Your task to perform on an android device: turn on priority inbox in the gmail app Image 0: 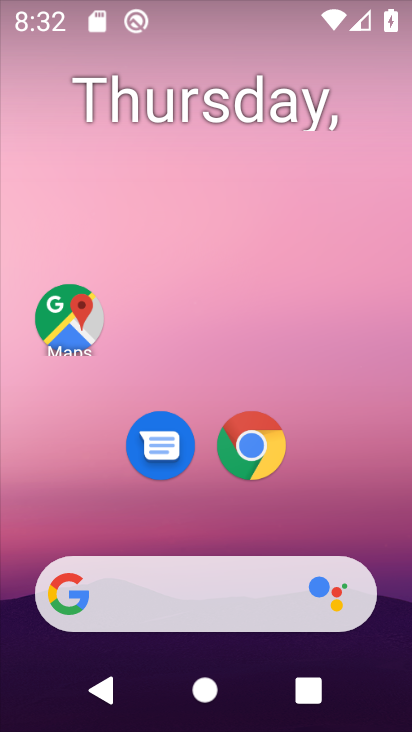
Step 0: drag from (318, 526) to (162, 60)
Your task to perform on an android device: turn on priority inbox in the gmail app Image 1: 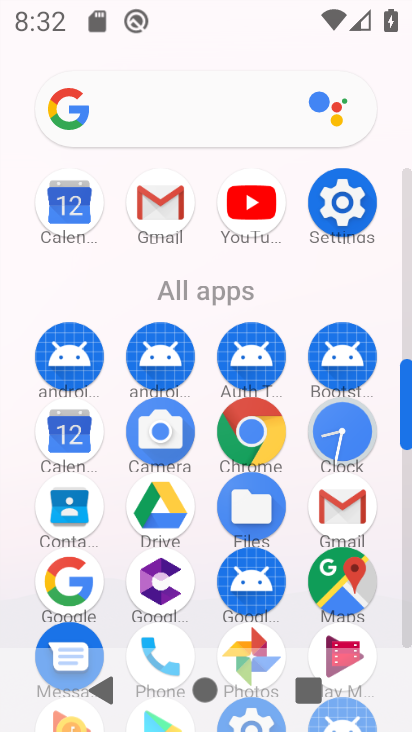
Step 1: click (170, 205)
Your task to perform on an android device: turn on priority inbox in the gmail app Image 2: 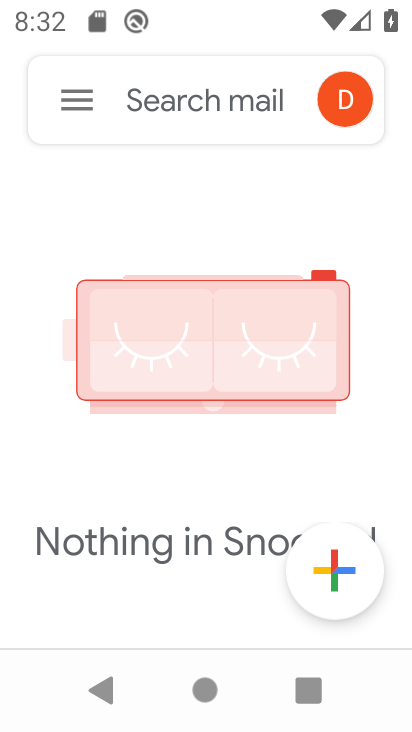
Step 2: click (81, 102)
Your task to perform on an android device: turn on priority inbox in the gmail app Image 3: 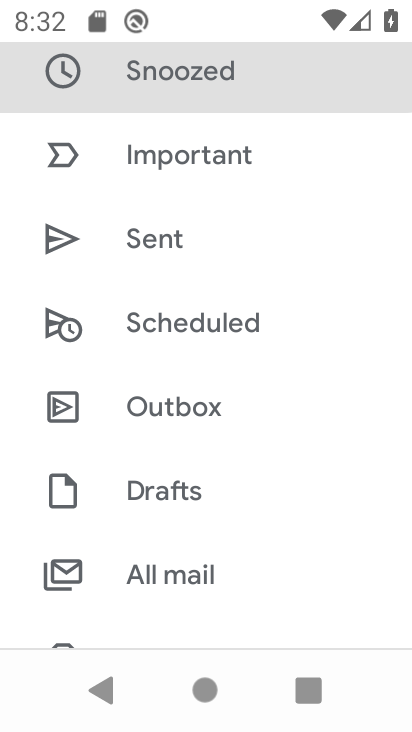
Step 3: drag from (225, 611) to (199, 267)
Your task to perform on an android device: turn on priority inbox in the gmail app Image 4: 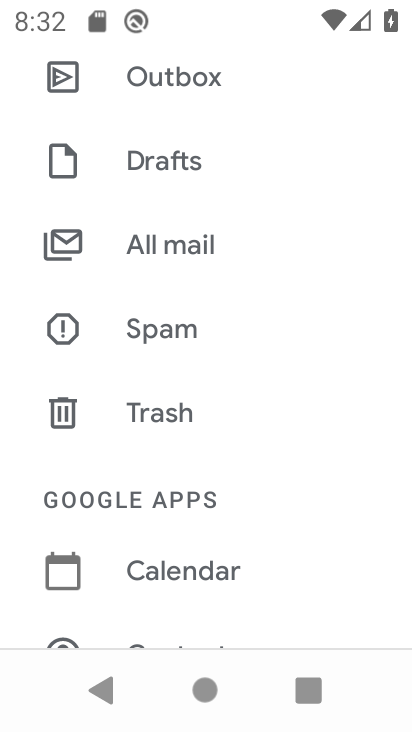
Step 4: drag from (187, 613) to (204, 230)
Your task to perform on an android device: turn on priority inbox in the gmail app Image 5: 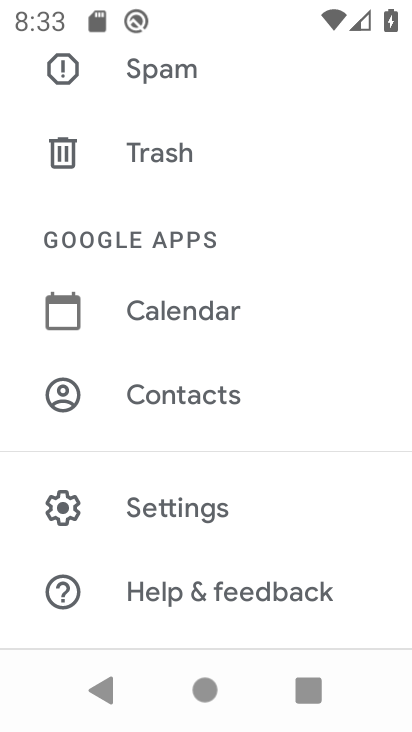
Step 5: click (167, 505)
Your task to perform on an android device: turn on priority inbox in the gmail app Image 6: 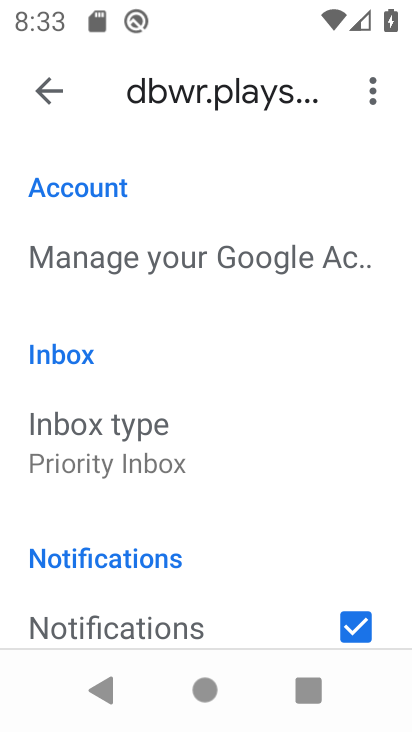
Step 6: task complete